Your task to perform on an android device: Go to Google maps Image 0: 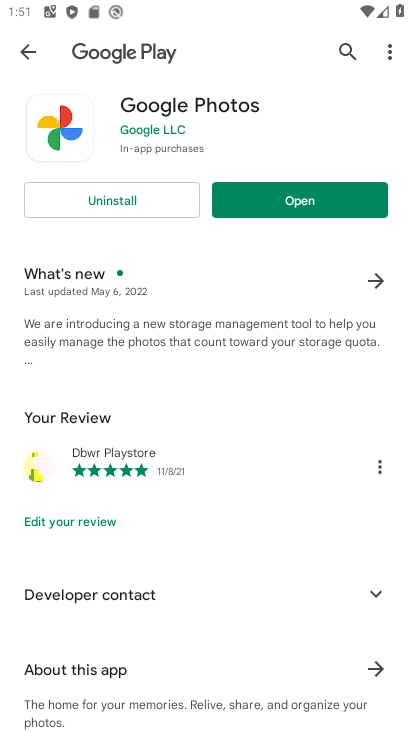
Step 0: press home button
Your task to perform on an android device: Go to Google maps Image 1: 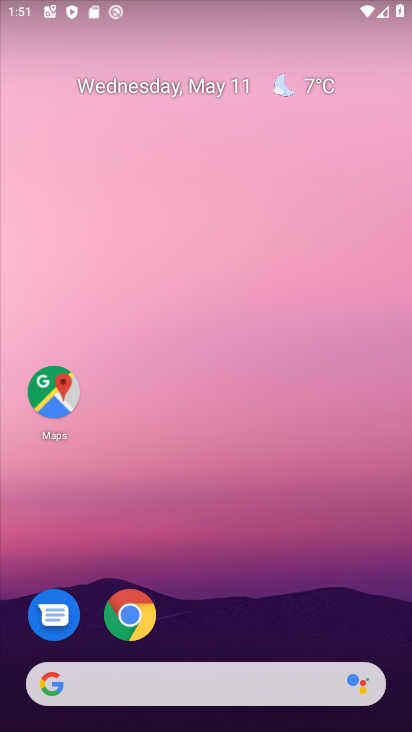
Step 1: click (45, 394)
Your task to perform on an android device: Go to Google maps Image 2: 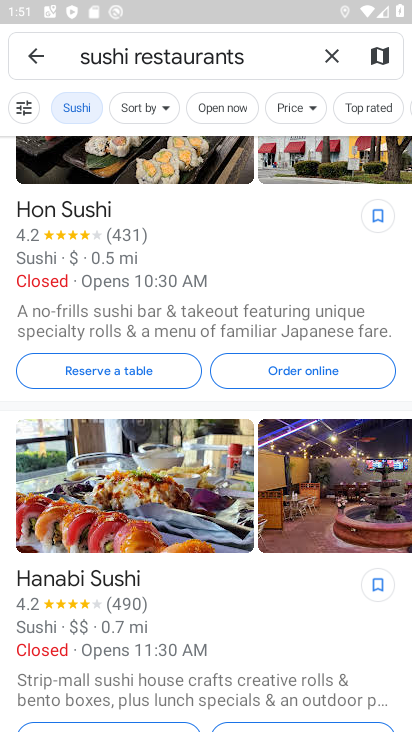
Step 2: task complete